Your task to perform on an android device: What's the weather going to be this weekend? Image 0: 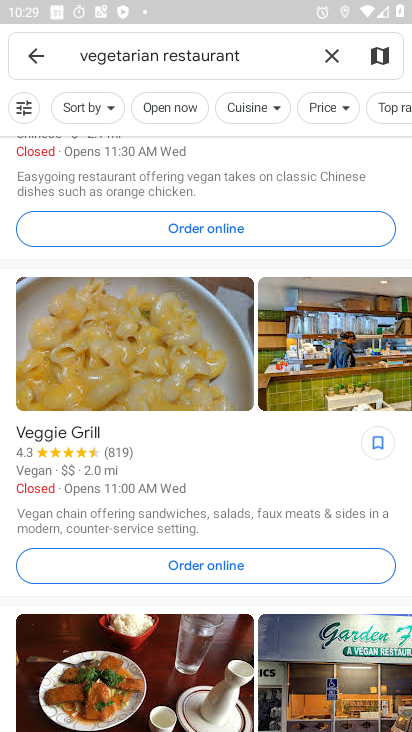
Step 0: press home button
Your task to perform on an android device: What's the weather going to be this weekend? Image 1: 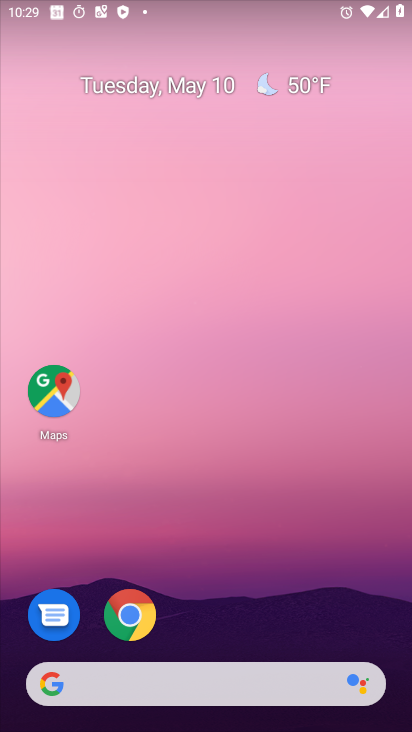
Step 1: click (295, 81)
Your task to perform on an android device: What's the weather going to be this weekend? Image 2: 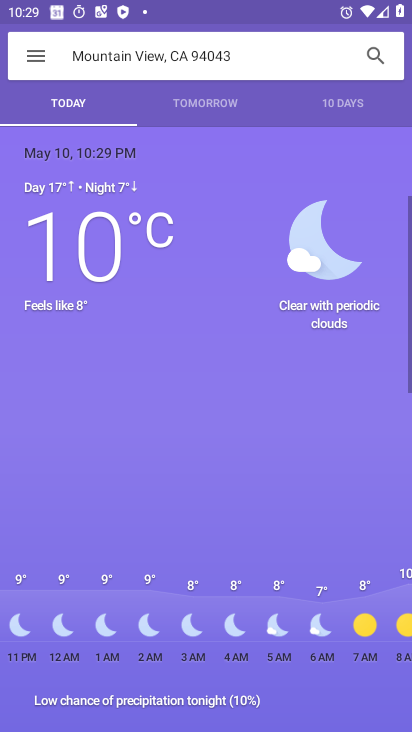
Step 2: click (365, 99)
Your task to perform on an android device: What's the weather going to be this weekend? Image 3: 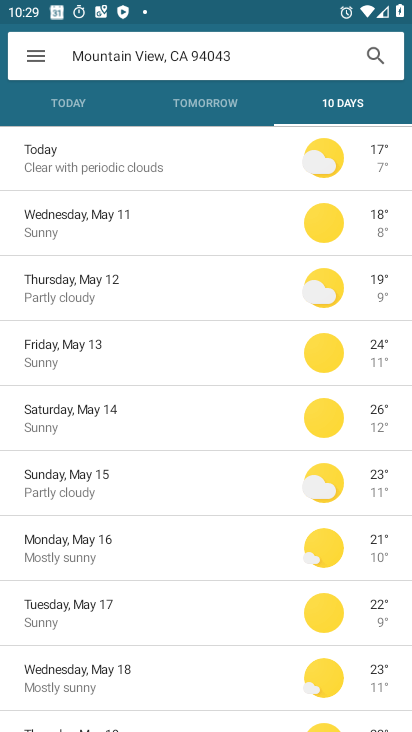
Step 3: task complete